Your task to perform on an android device: delete location history Image 0: 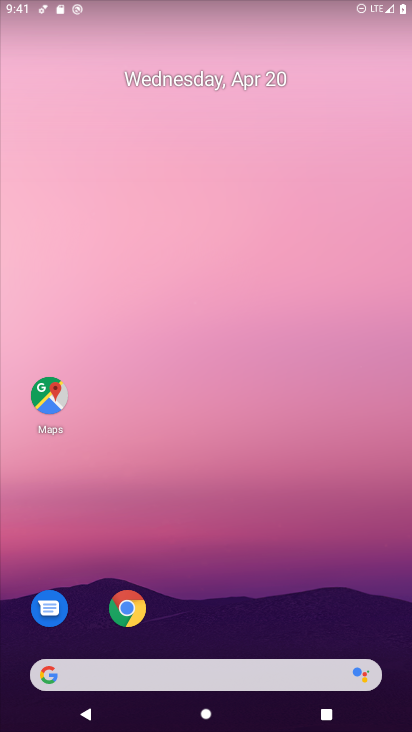
Step 0: click (307, 76)
Your task to perform on an android device: delete location history Image 1: 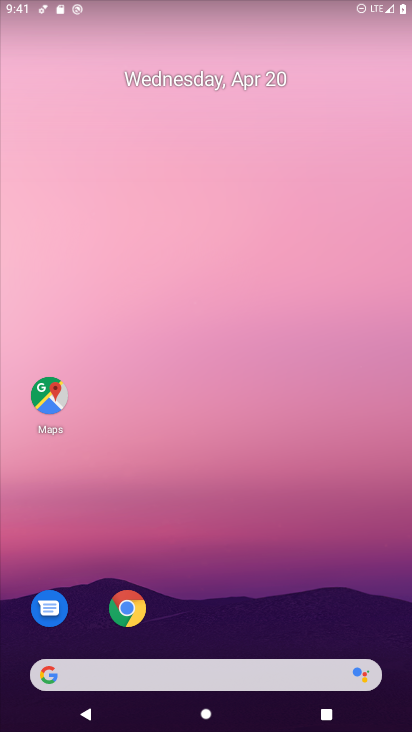
Step 1: drag from (230, 619) to (314, 10)
Your task to perform on an android device: delete location history Image 2: 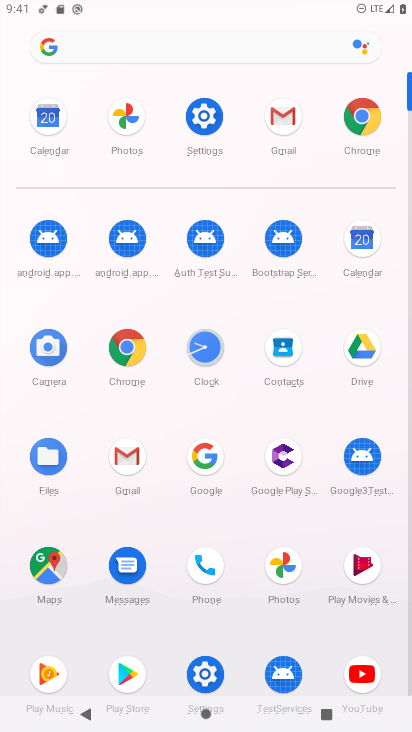
Step 2: click (39, 574)
Your task to perform on an android device: delete location history Image 3: 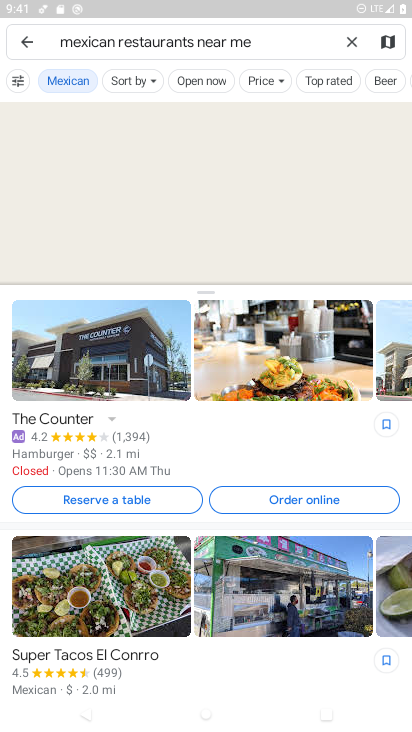
Step 3: click (21, 43)
Your task to perform on an android device: delete location history Image 4: 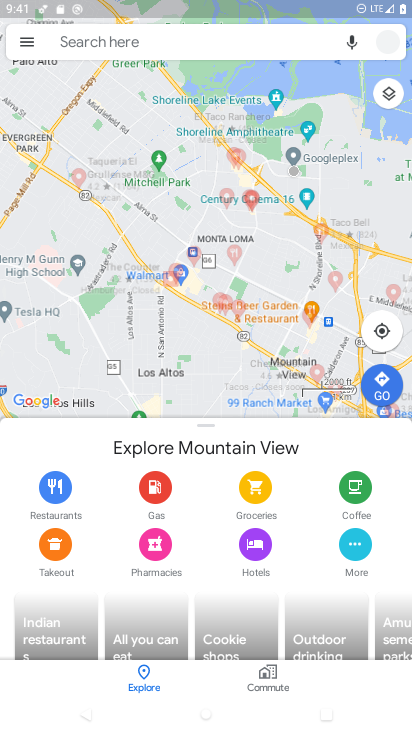
Step 4: click (22, 44)
Your task to perform on an android device: delete location history Image 5: 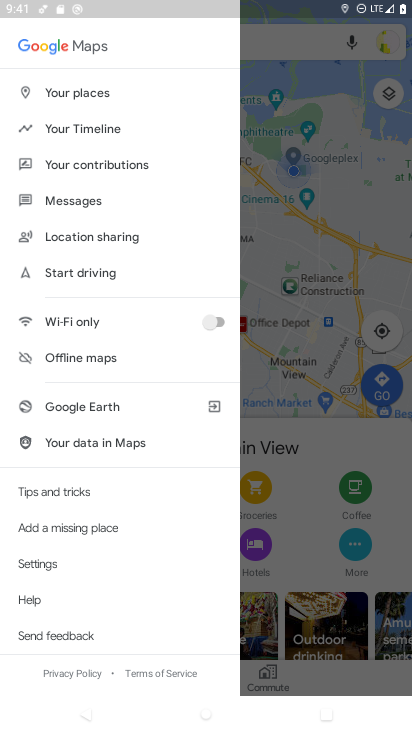
Step 5: click (104, 130)
Your task to perform on an android device: delete location history Image 6: 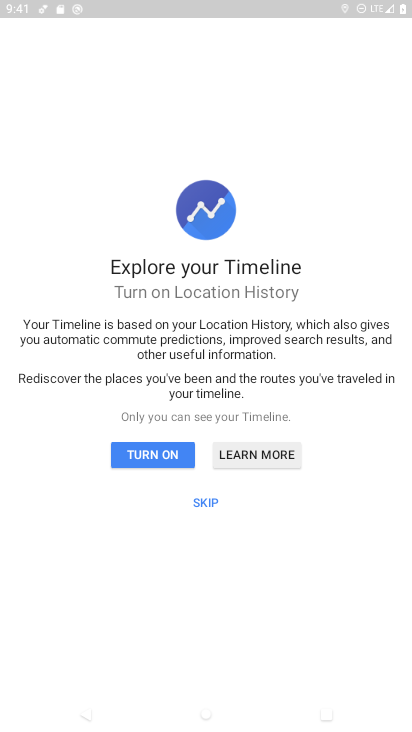
Step 6: click (214, 497)
Your task to perform on an android device: delete location history Image 7: 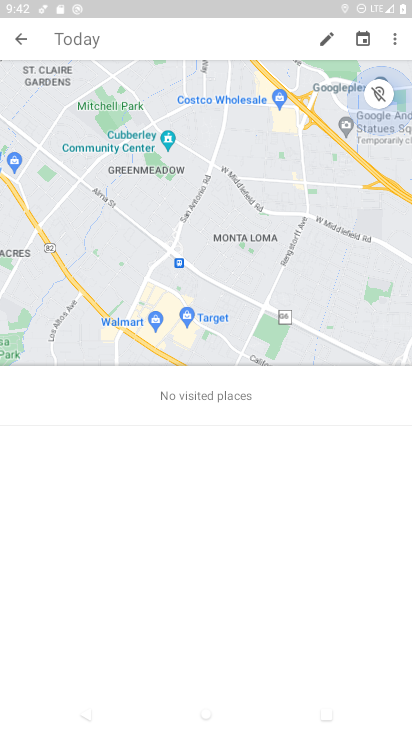
Step 7: click (398, 41)
Your task to perform on an android device: delete location history Image 8: 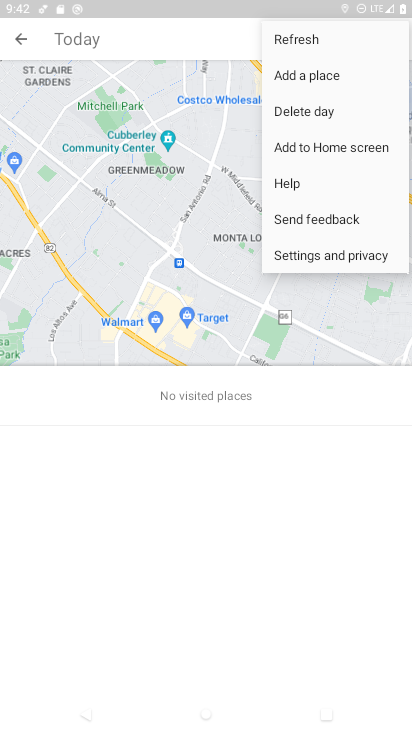
Step 8: click (328, 262)
Your task to perform on an android device: delete location history Image 9: 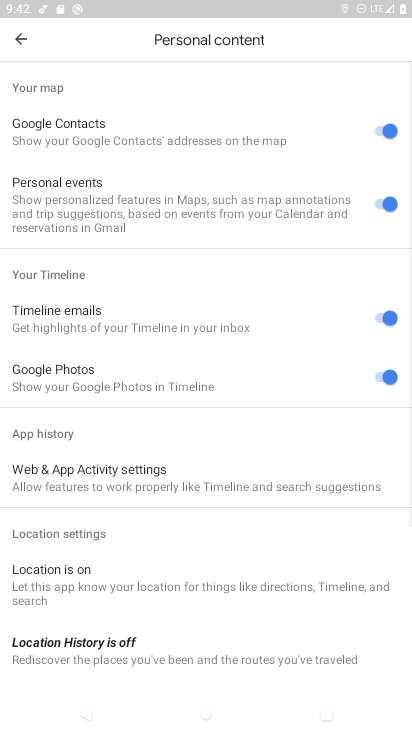
Step 9: drag from (196, 527) to (261, 191)
Your task to perform on an android device: delete location history Image 10: 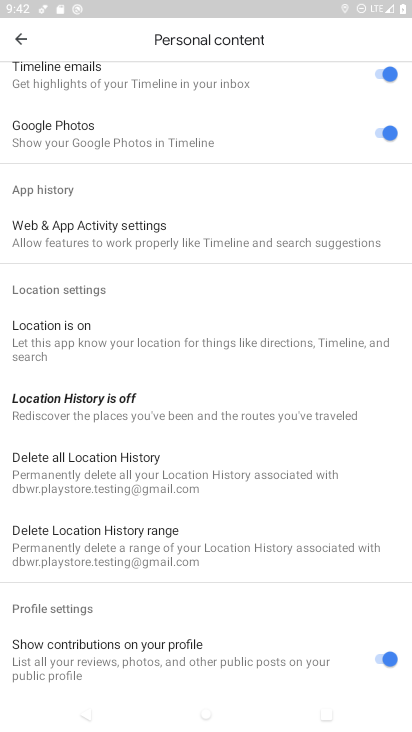
Step 10: click (191, 475)
Your task to perform on an android device: delete location history Image 11: 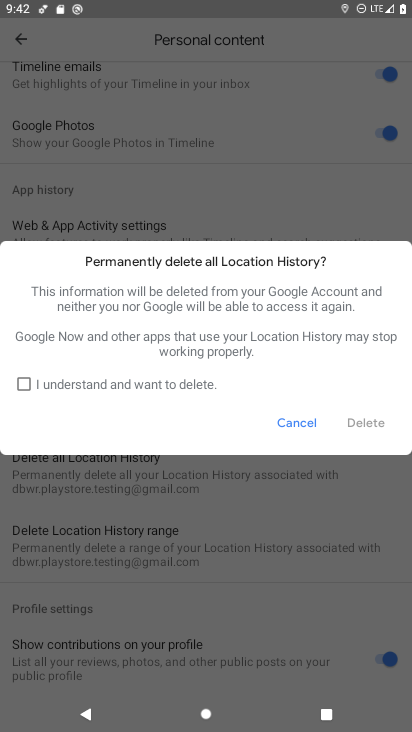
Step 11: click (99, 384)
Your task to perform on an android device: delete location history Image 12: 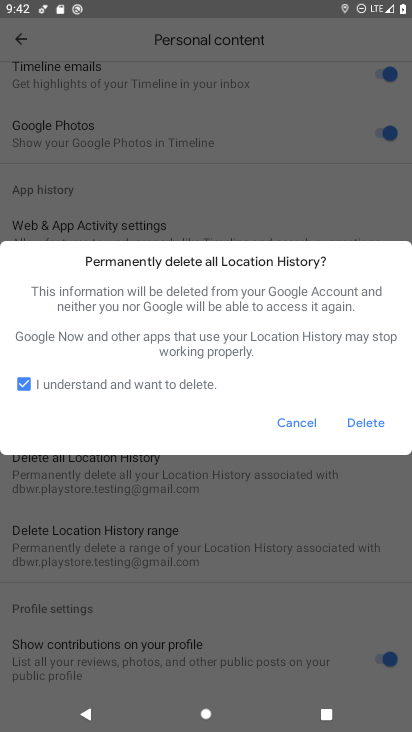
Step 12: click (372, 425)
Your task to perform on an android device: delete location history Image 13: 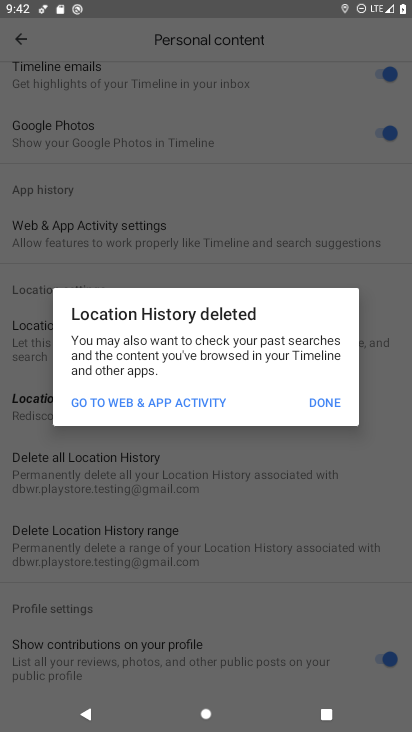
Step 13: click (338, 394)
Your task to perform on an android device: delete location history Image 14: 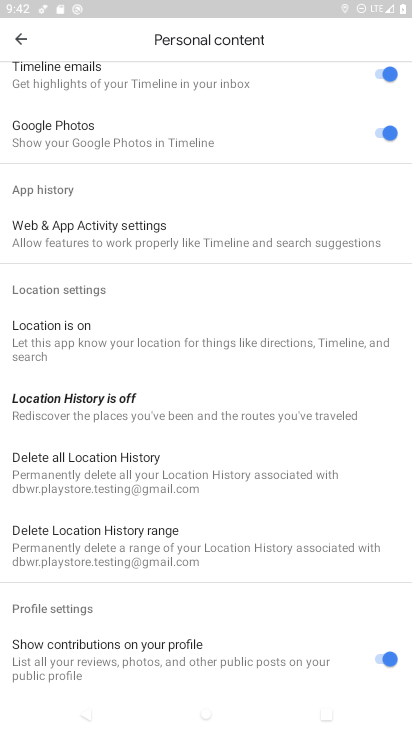
Step 14: task complete